Your task to perform on an android device: set default search engine in the chrome app Image 0: 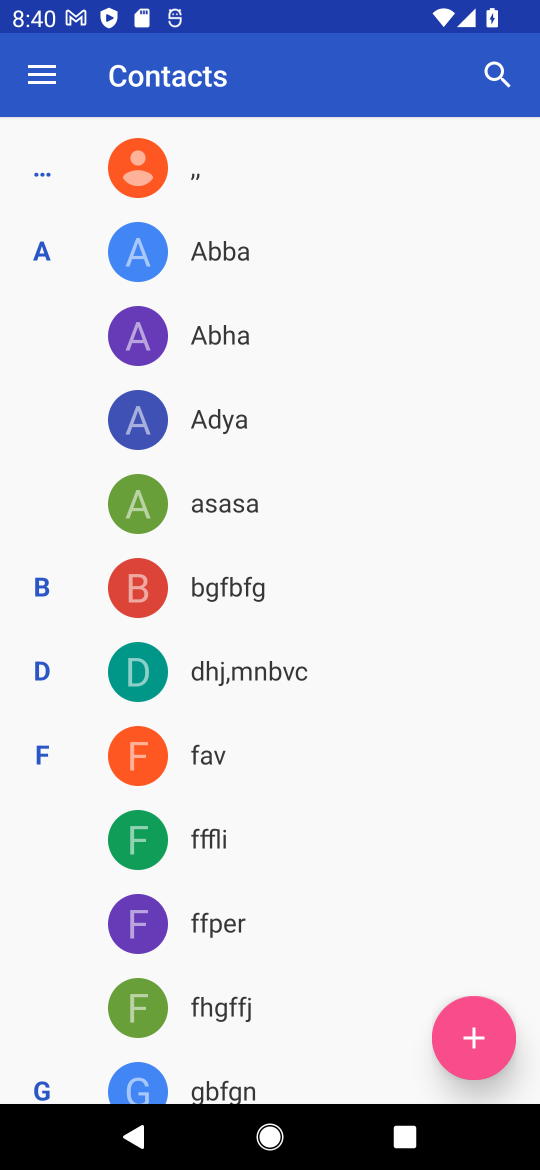
Step 0: press home button
Your task to perform on an android device: set default search engine in the chrome app Image 1: 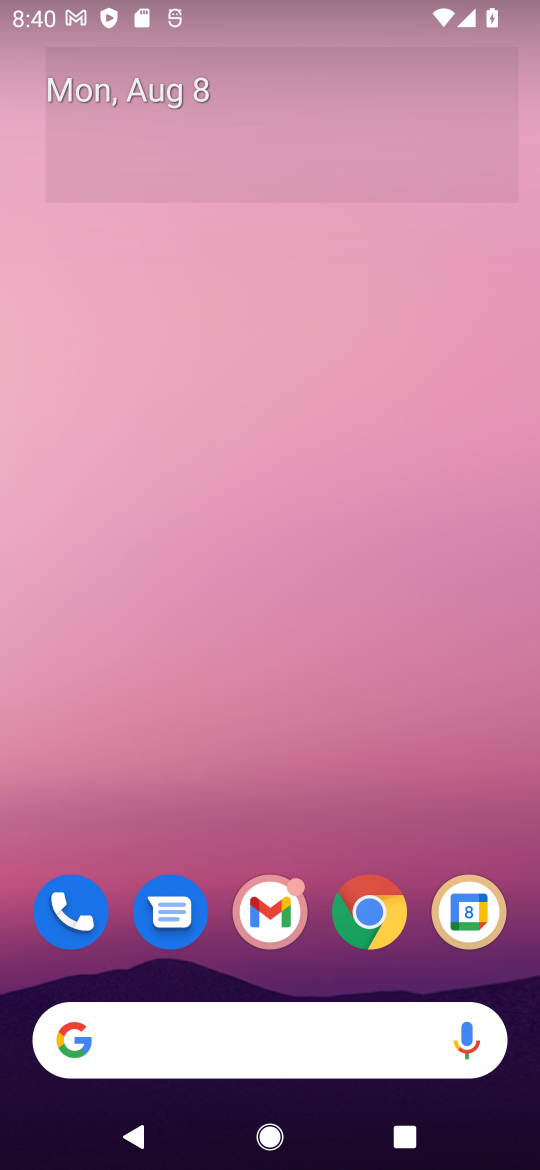
Step 1: drag from (448, 926) to (206, 8)
Your task to perform on an android device: set default search engine in the chrome app Image 2: 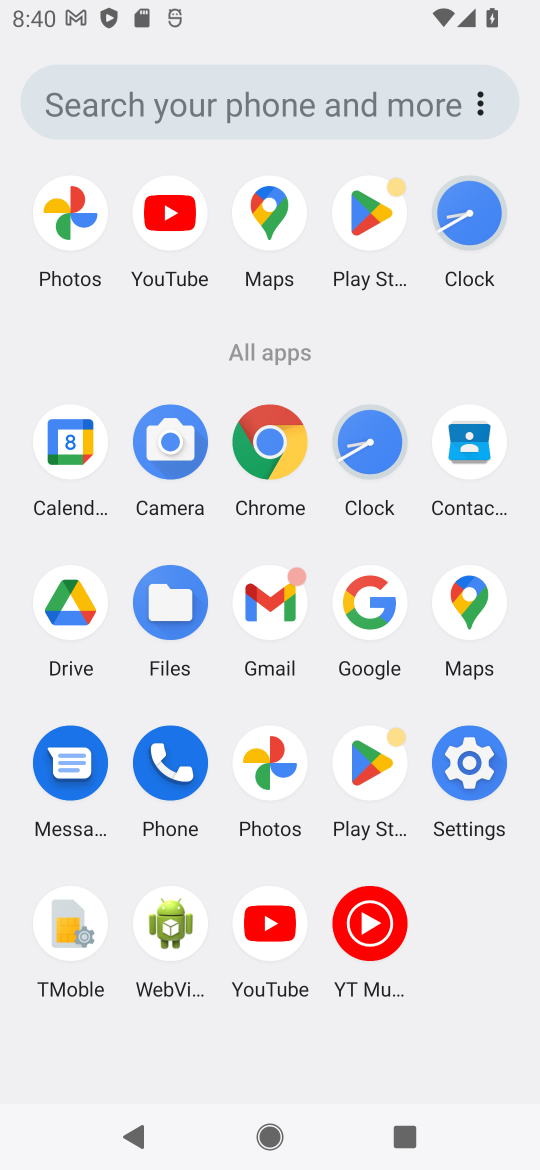
Step 2: click (254, 467)
Your task to perform on an android device: set default search engine in the chrome app Image 3: 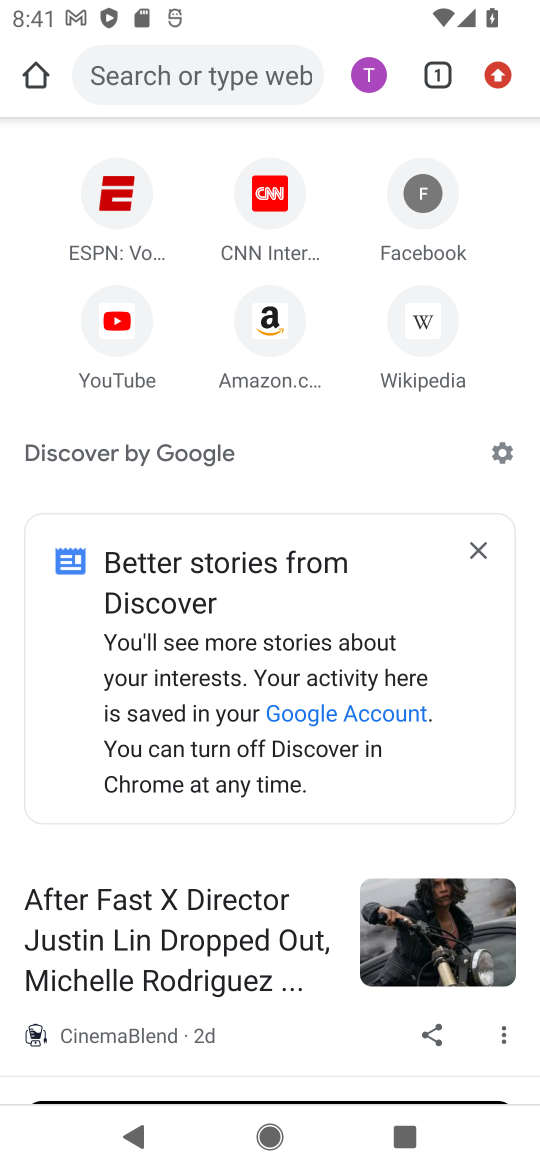
Step 3: click (489, 82)
Your task to perform on an android device: set default search engine in the chrome app Image 4: 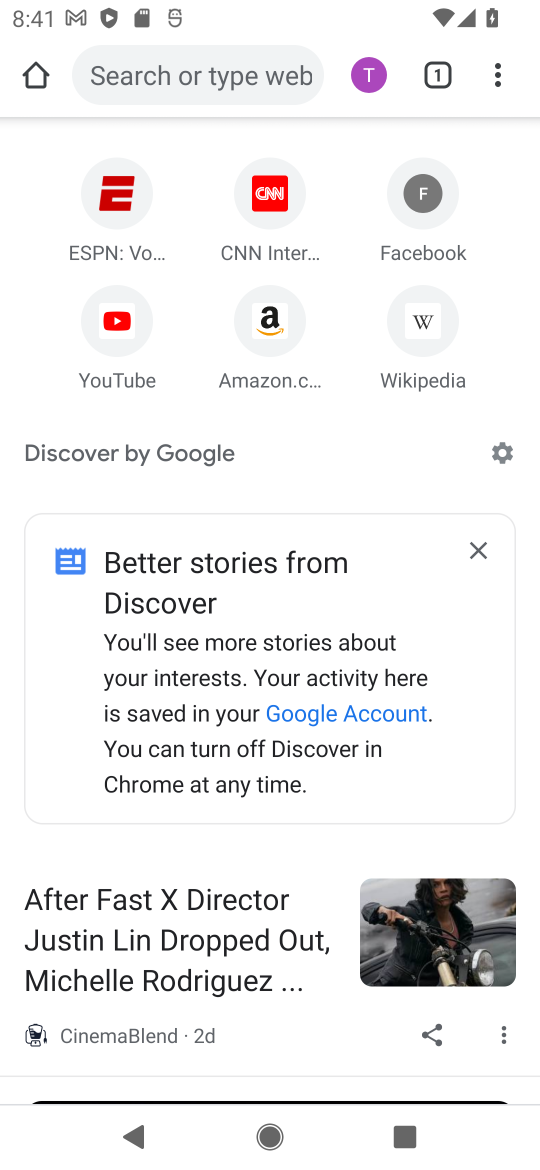
Step 4: click (489, 82)
Your task to perform on an android device: set default search engine in the chrome app Image 5: 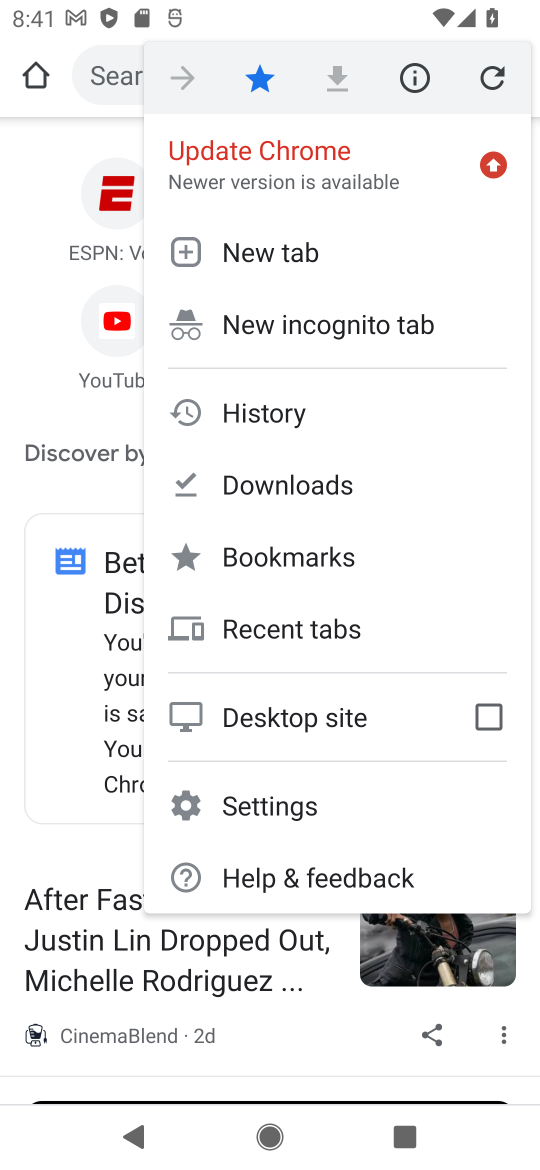
Step 5: click (295, 820)
Your task to perform on an android device: set default search engine in the chrome app Image 6: 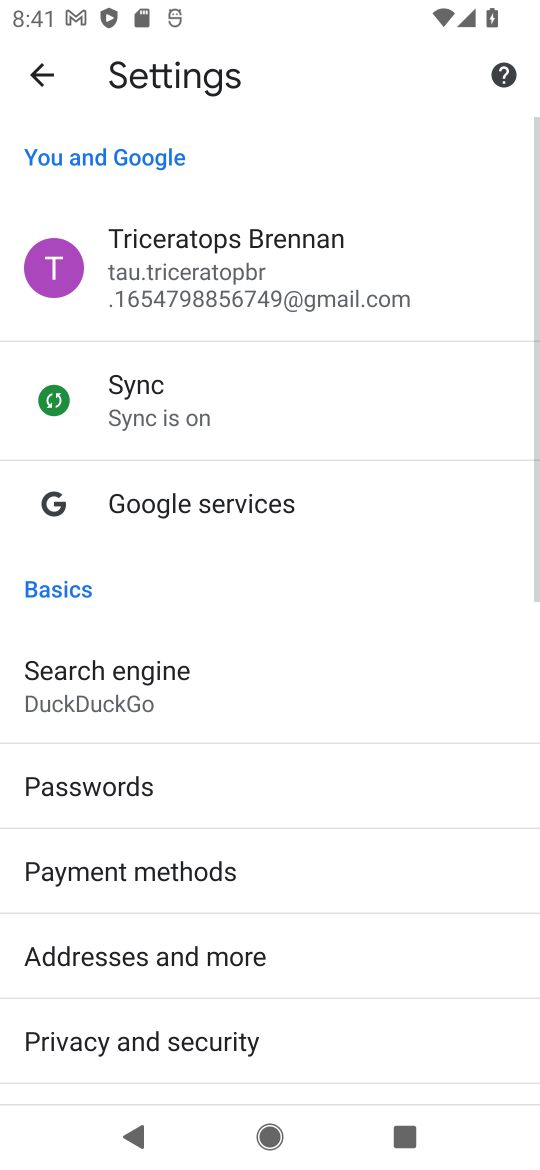
Step 6: click (89, 665)
Your task to perform on an android device: set default search engine in the chrome app Image 7: 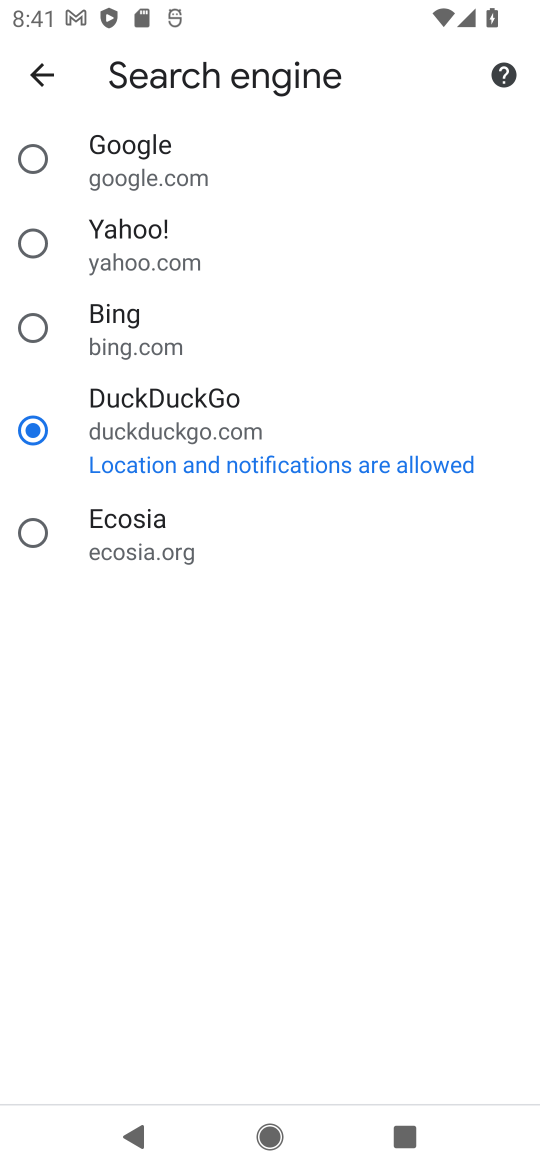
Step 7: click (186, 170)
Your task to perform on an android device: set default search engine in the chrome app Image 8: 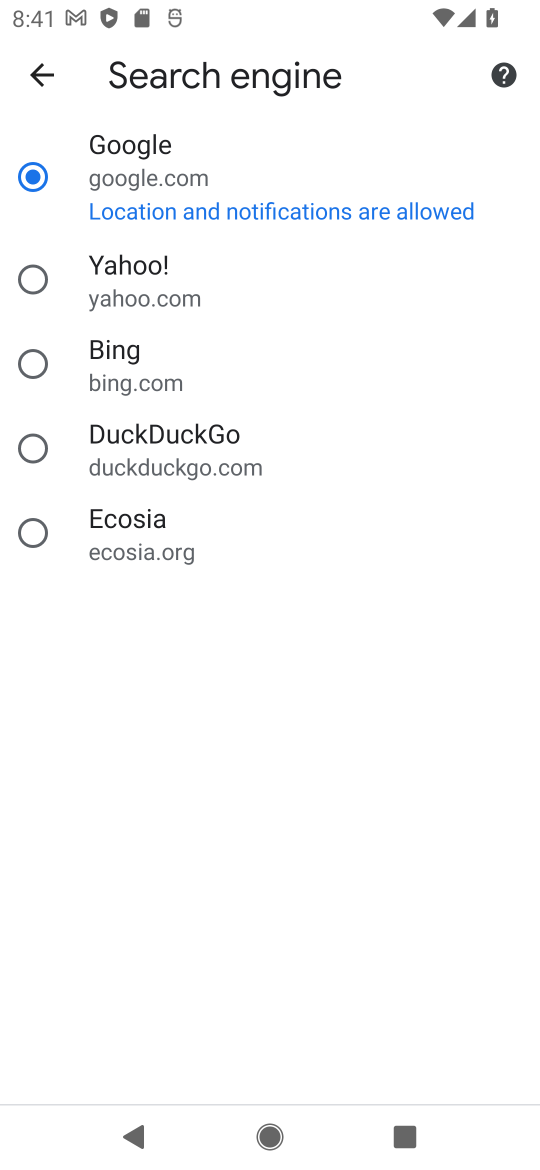
Step 8: task complete